Your task to perform on an android device: choose inbox layout in the gmail app Image 0: 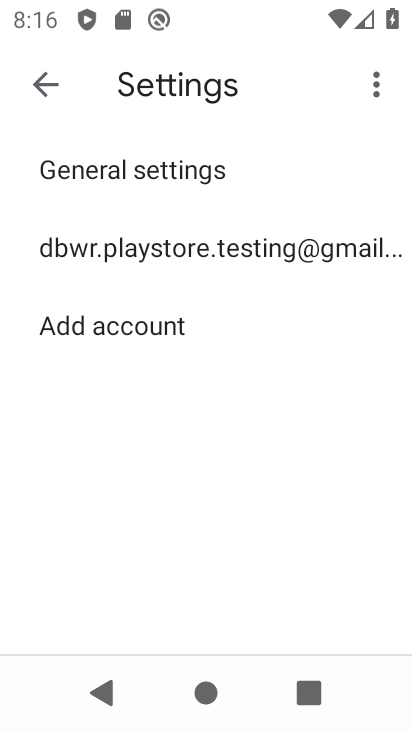
Step 0: press home button
Your task to perform on an android device: choose inbox layout in the gmail app Image 1: 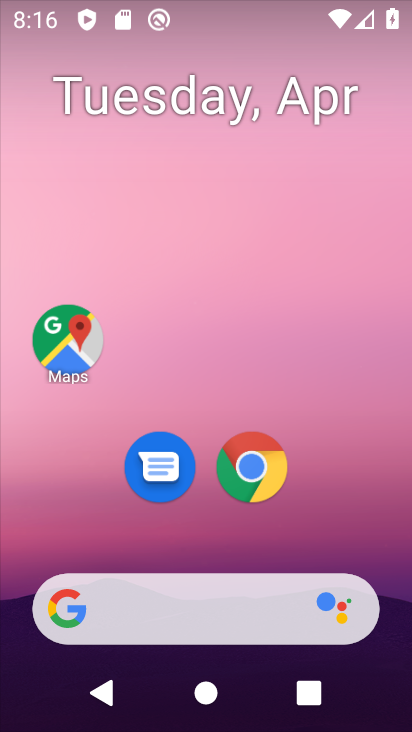
Step 1: drag from (382, 533) to (250, 0)
Your task to perform on an android device: choose inbox layout in the gmail app Image 2: 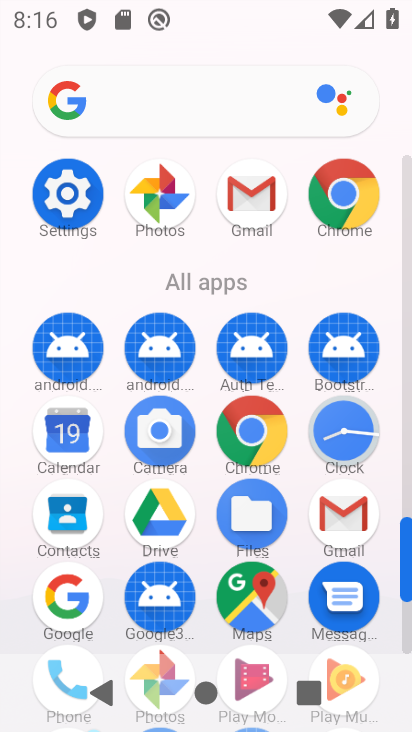
Step 2: click (251, 192)
Your task to perform on an android device: choose inbox layout in the gmail app Image 3: 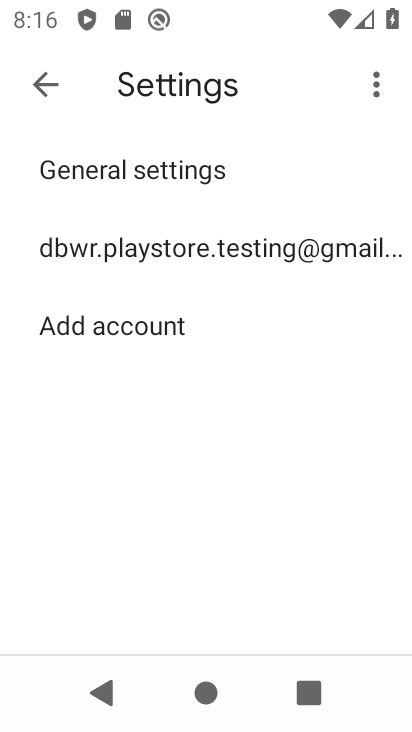
Step 3: click (125, 248)
Your task to perform on an android device: choose inbox layout in the gmail app Image 4: 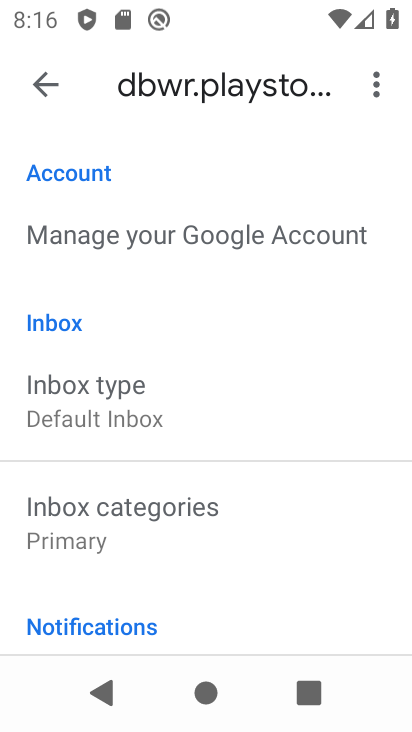
Step 4: click (70, 418)
Your task to perform on an android device: choose inbox layout in the gmail app Image 5: 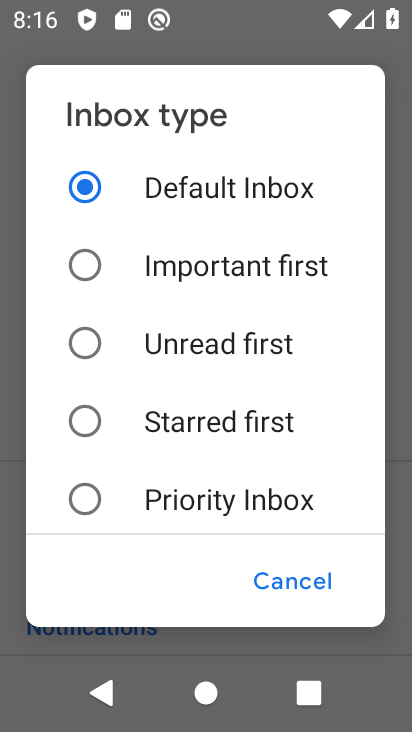
Step 5: click (88, 424)
Your task to perform on an android device: choose inbox layout in the gmail app Image 6: 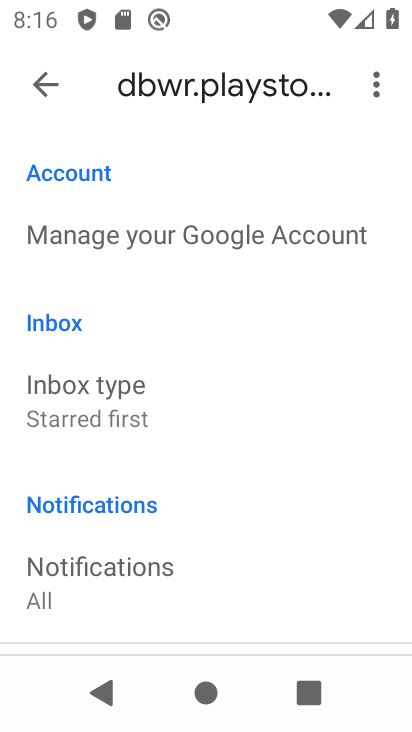
Step 6: task complete